Your task to perform on an android device: How do I get to the nearest electronics store? Image 0: 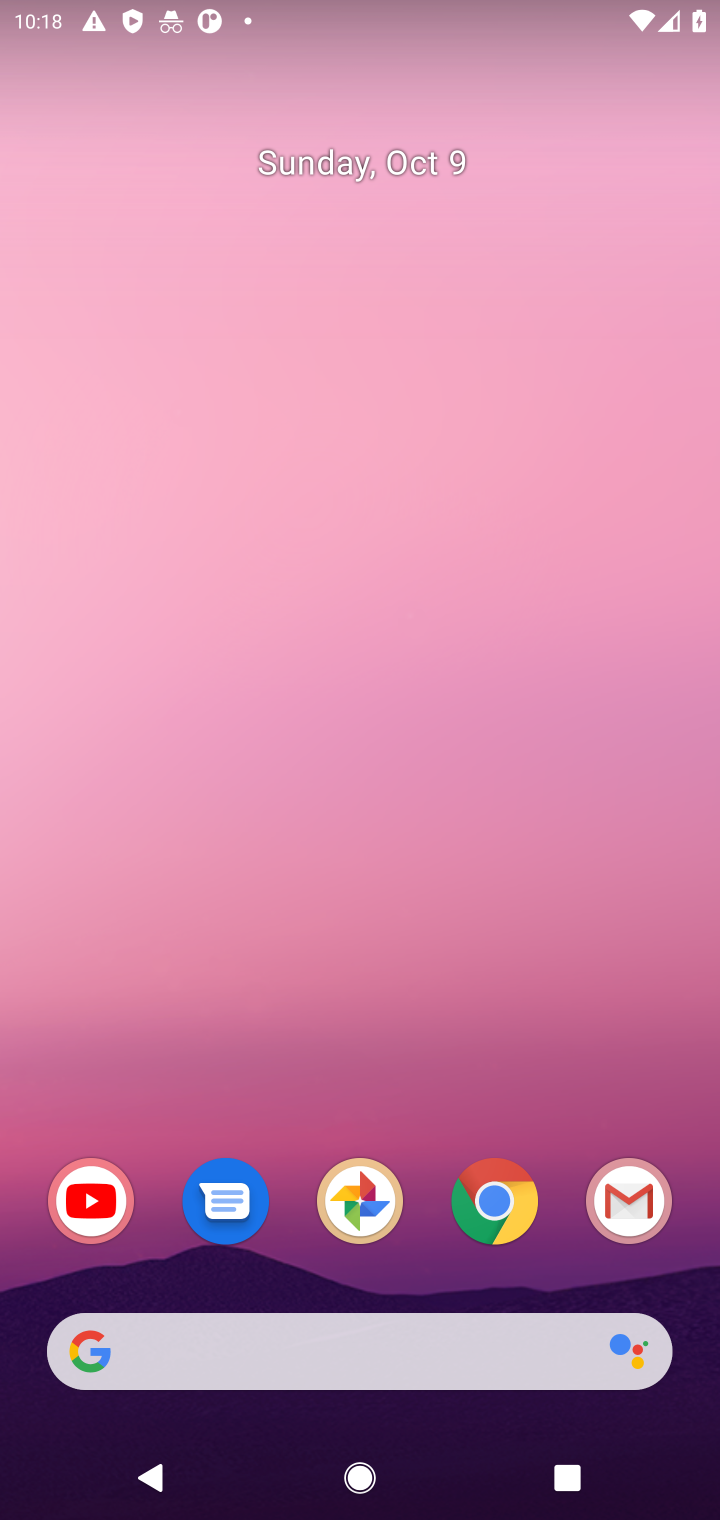
Step 0: click (490, 1203)
Your task to perform on an android device: How do I get to the nearest electronics store? Image 1: 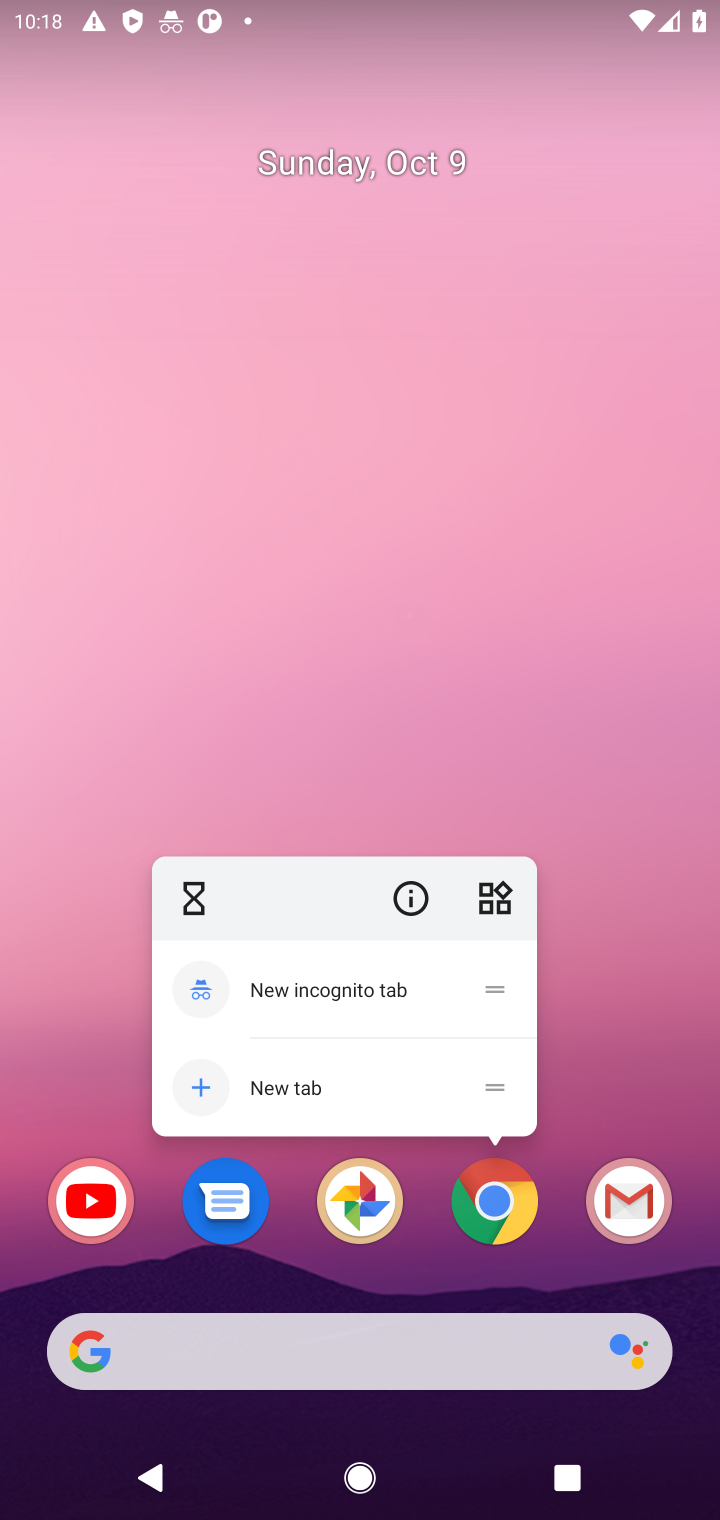
Step 1: click (490, 1203)
Your task to perform on an android device: How do I get to the nearest electronics store? Image 2: 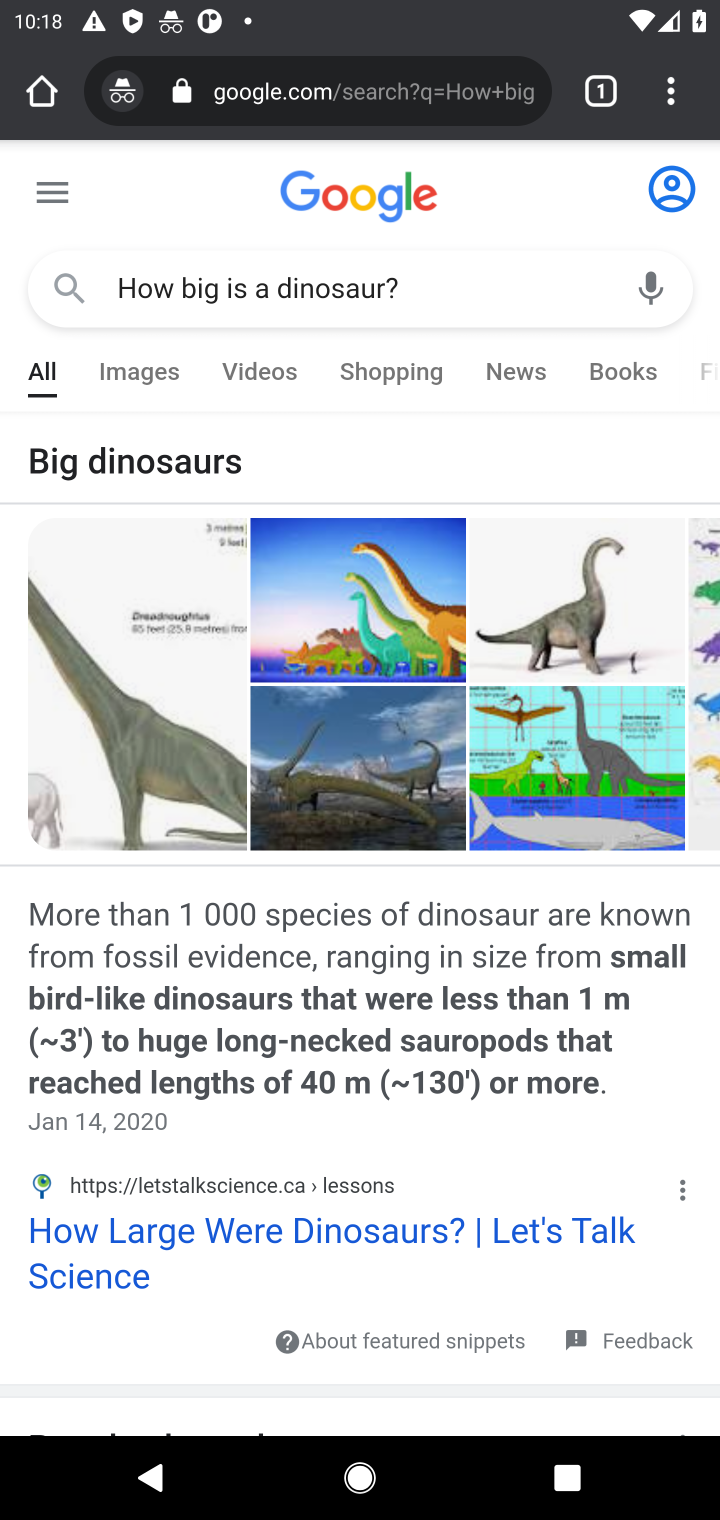
Step 2: click (237, 104)
Your task to perform on an android device: How do I get to the nearest electronics store? Image 3: 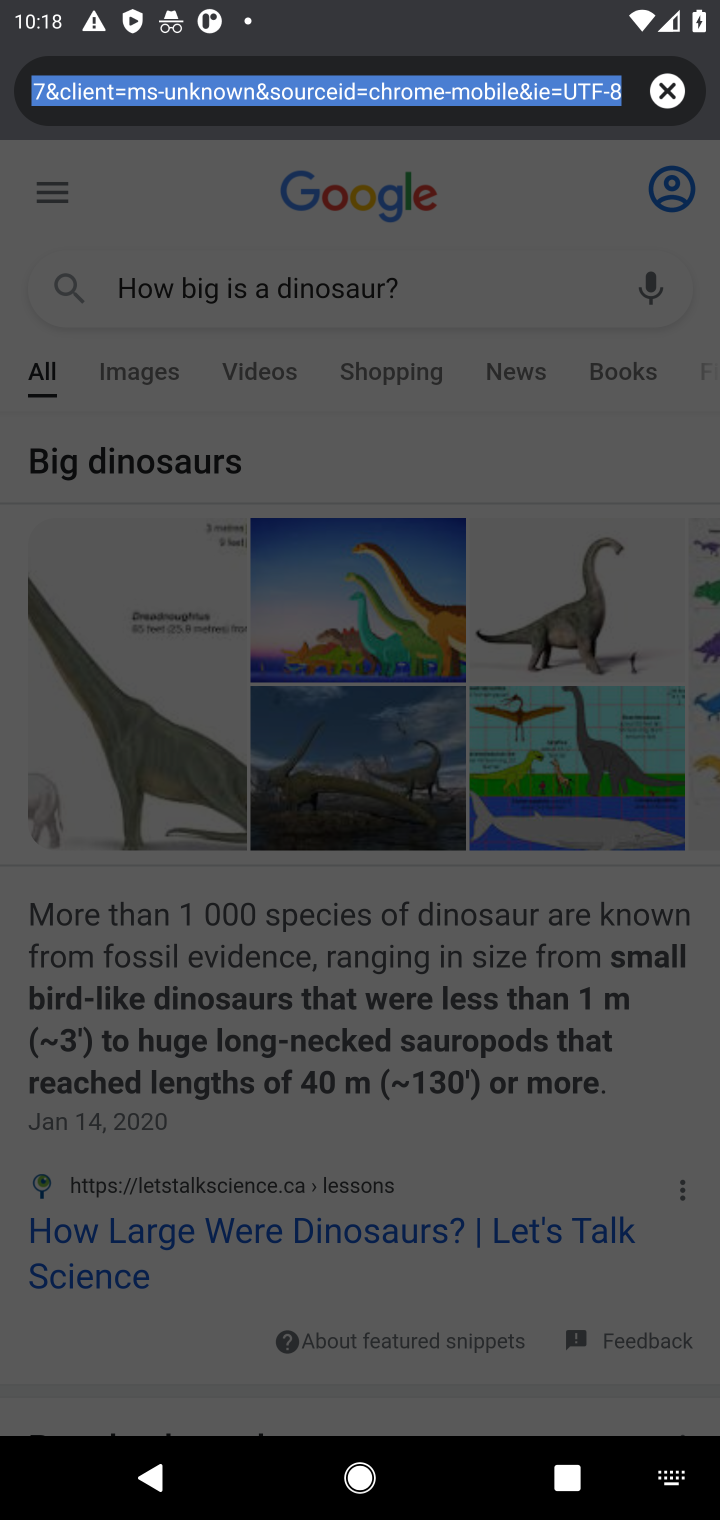
Step 3: type "How do I get to the nearest electronics store?"
Your task to perform on an android device: How do I get to the nearest electronics store? Image 4: 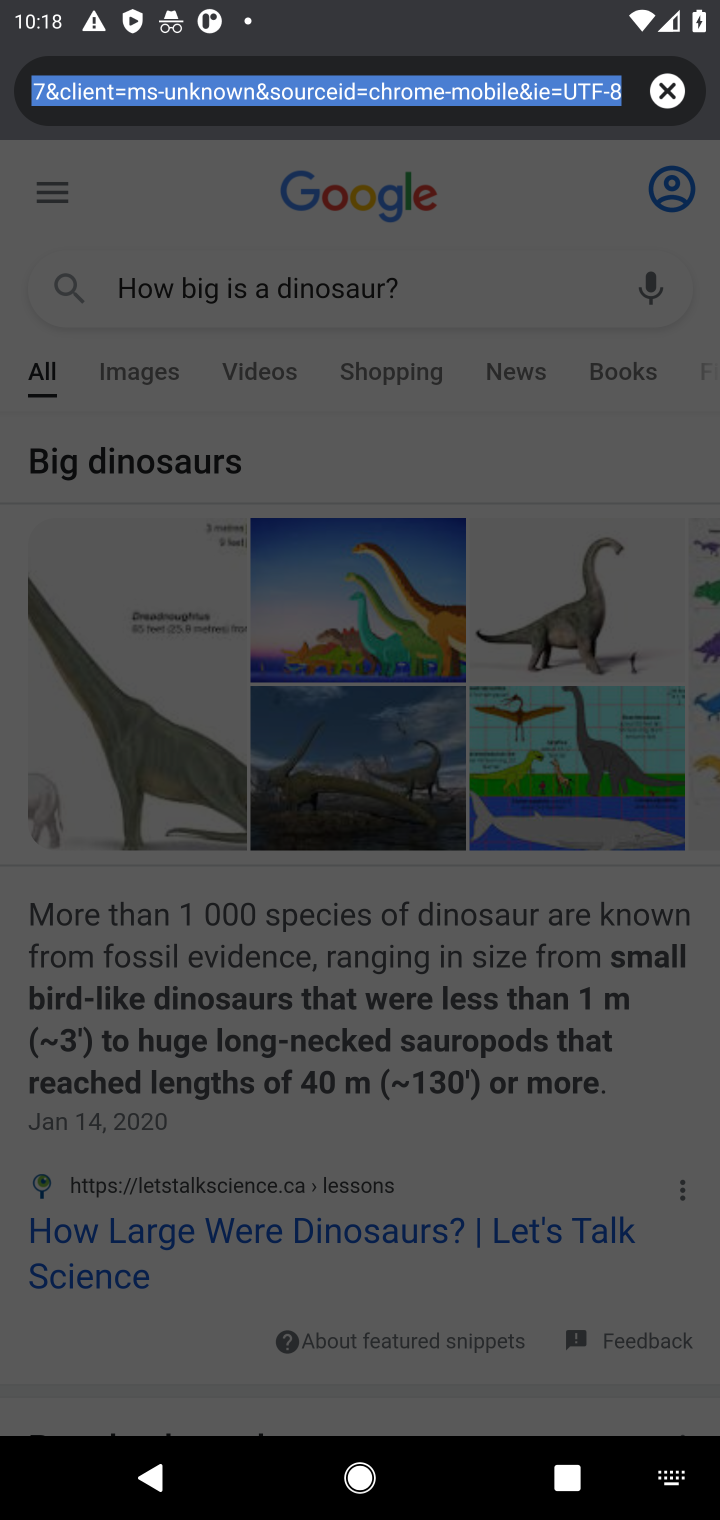
Step 4: click (437, 84)
Your task to perform on an android device: How do I get to the nearest electronics store? Image 5: 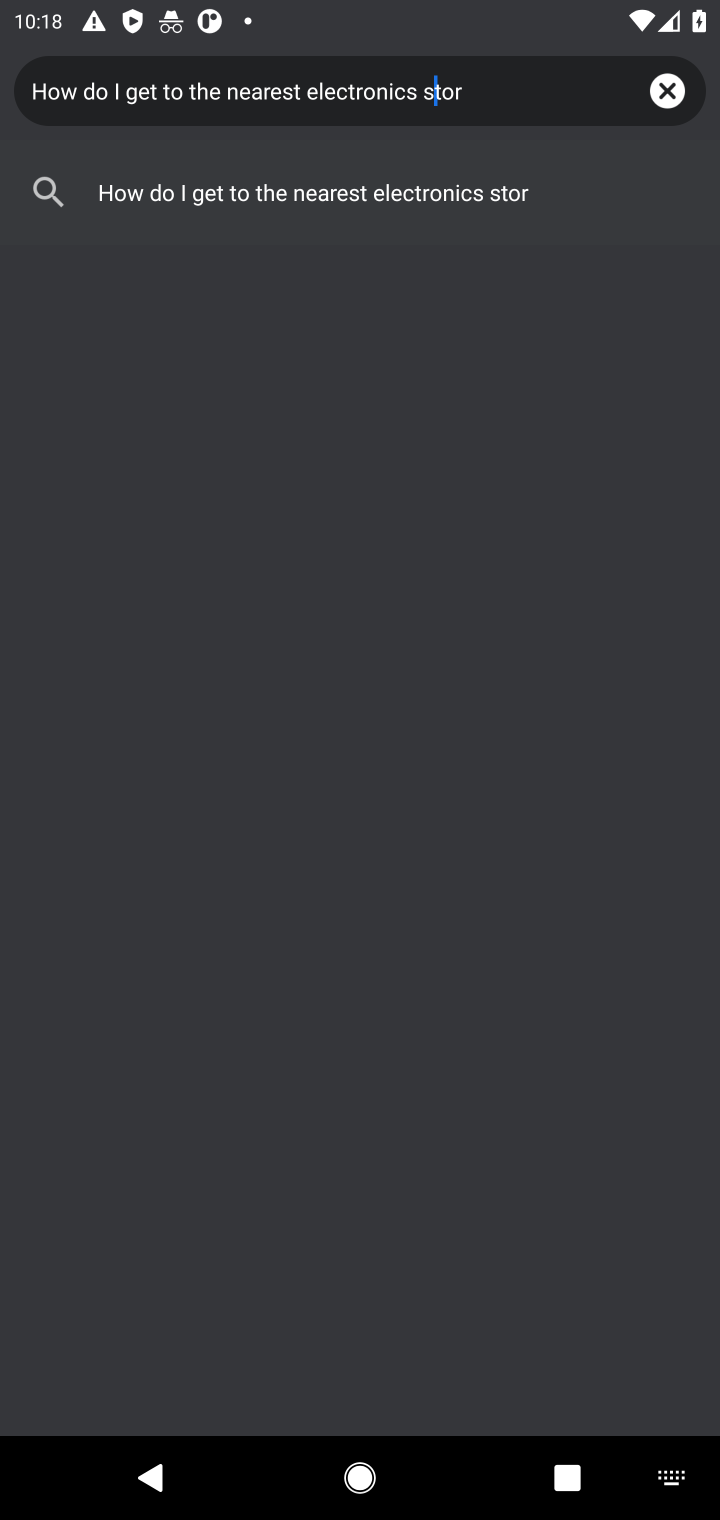
Step 5: click (400, 194)
Your task to perform on an android device: How do I get to the nearest electronics store? Image 6: 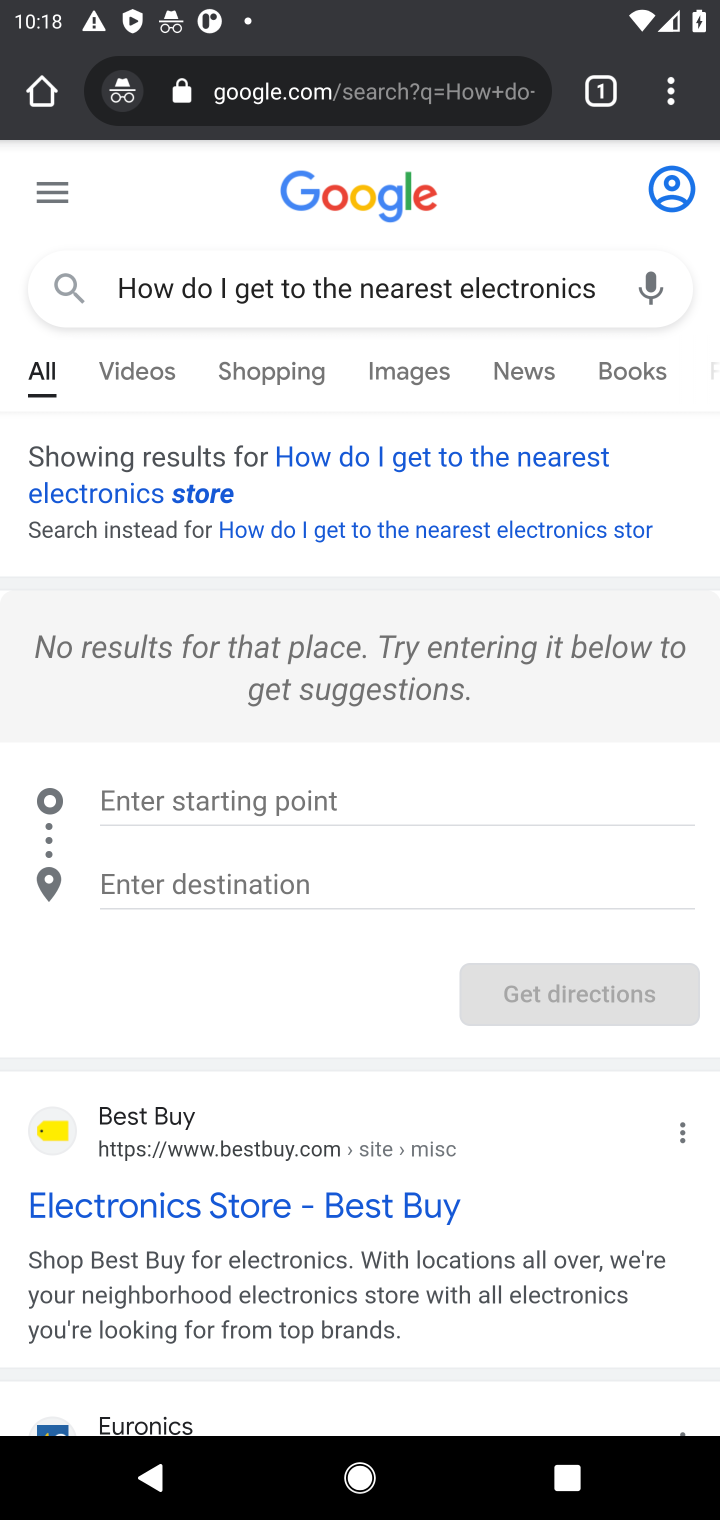
Step 6: task complete